Your task to perform on an android device: toggle notifications settings in the gmail app Image 0: 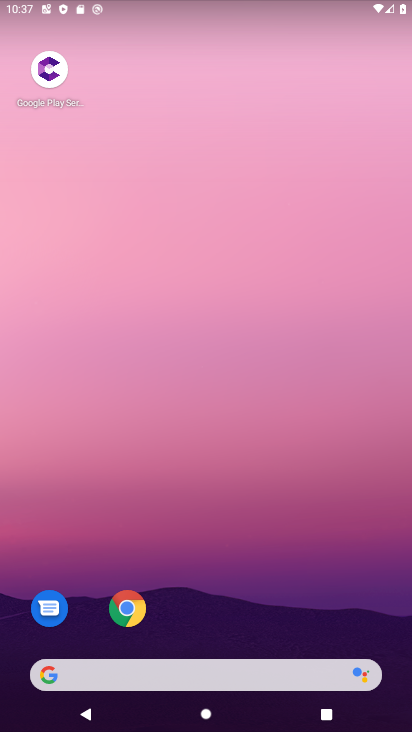
Step 0: drag from (364, 640) to (196, 17)
Your task to perform on an android device: toggle notifications settings in the gmail app Image 1: 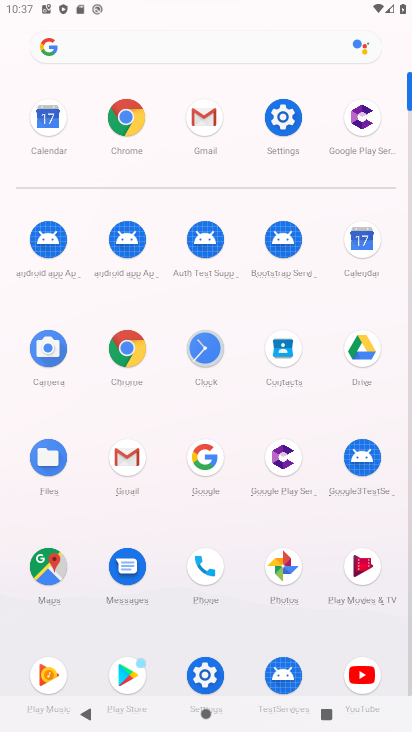
Step 1: click (132, 456)
Your task to perform on an android device: toggle notifications settings in the gmail app Image 2: 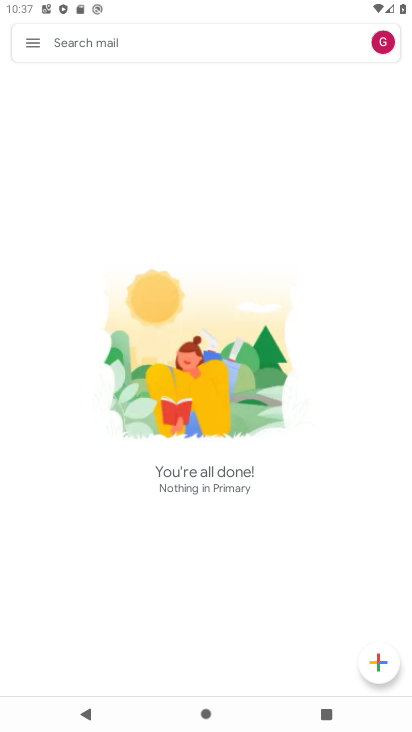
Step 2: click (24, 37)
Your task to perform on an android device: toggle notifications settings in the gmail app Image 3: 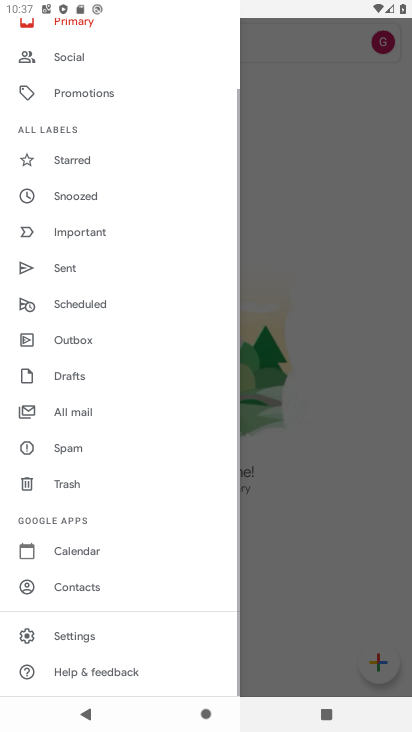
Step 3: click (65, 632)
Your task to perform on an android device: toggle notifications settings in the gmail app Image 4: 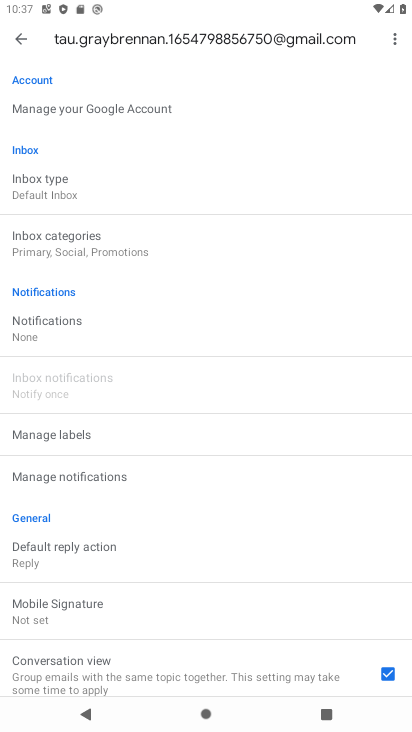
Step 4: click (92, 325)
Your task to perform on an android device: toggle notifications settings in the gmail app Image 5: 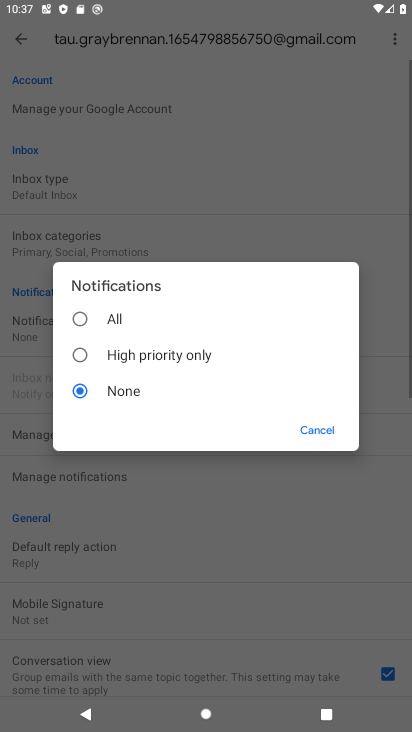
Step 5: click (78, 313)
Your task to perform on an android device: toggle notifications settings in the gmail app Image 6: 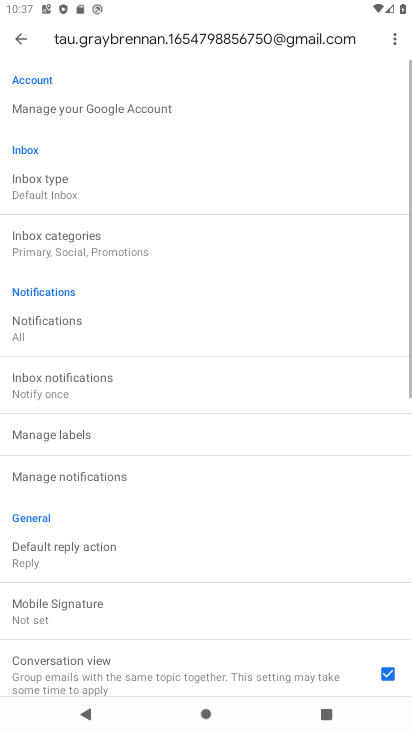
Step 6: task complete